Your task to perform on an android device: Search for acer predator on target.com, select the first entry, add it to the cart, then select checkout. Image 0: 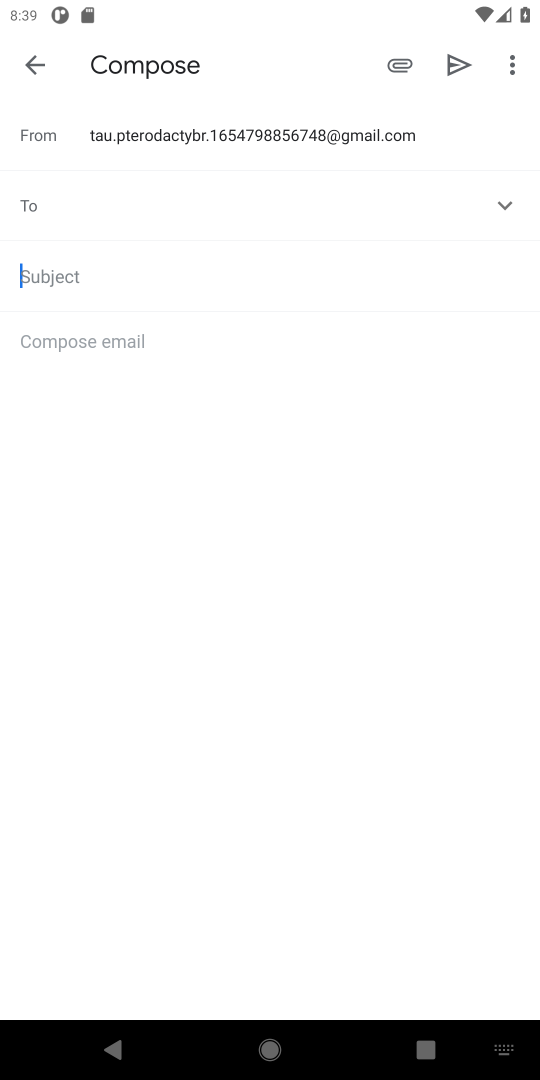
Step 0: press home button
Your task to perform on an android device: Search for acer predator on target.com, select the first entry, add it to the cart, then select checkout. Image 1: 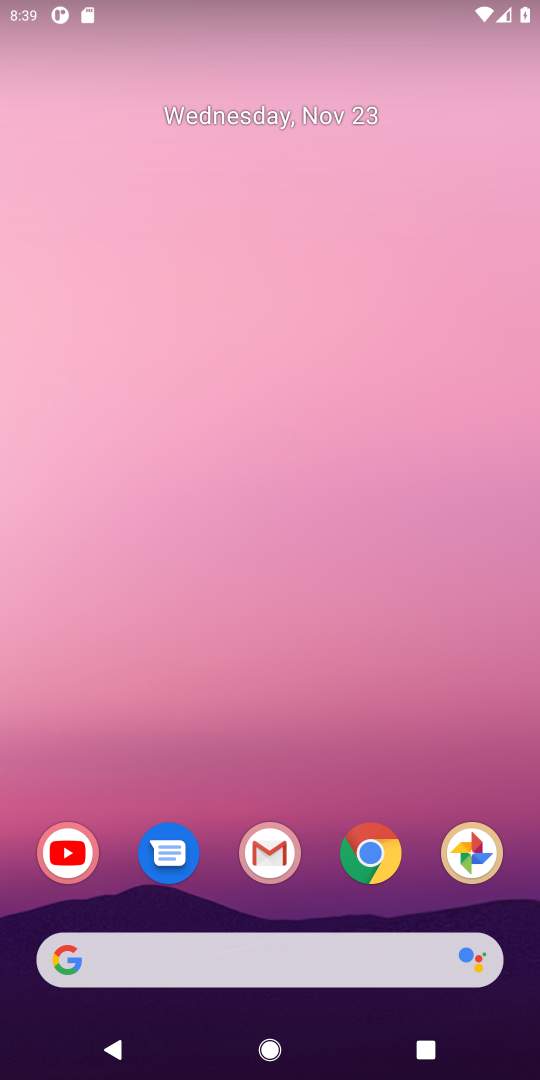
Step 1: click (368, 856)
Your task to perform on an android device: Search for acer predator on target.com, select the first entry, add it to the cart, then select checkout. Image 2: 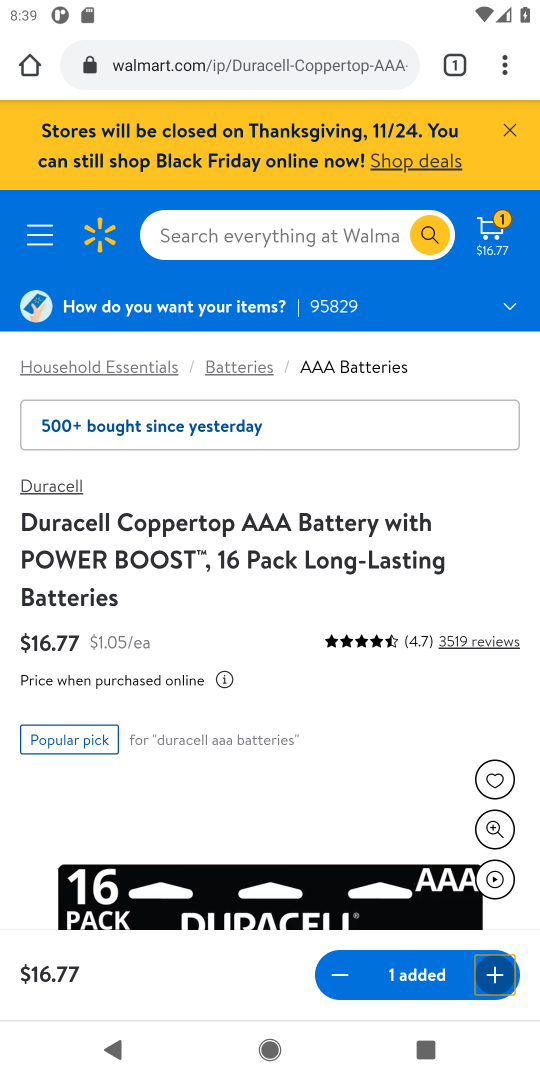
Step 2: click (197, 53)
Your task to perform on an android device: Search for acer predator on target.com, select the first entry, add it to the cart, then select checkout. Image 3: 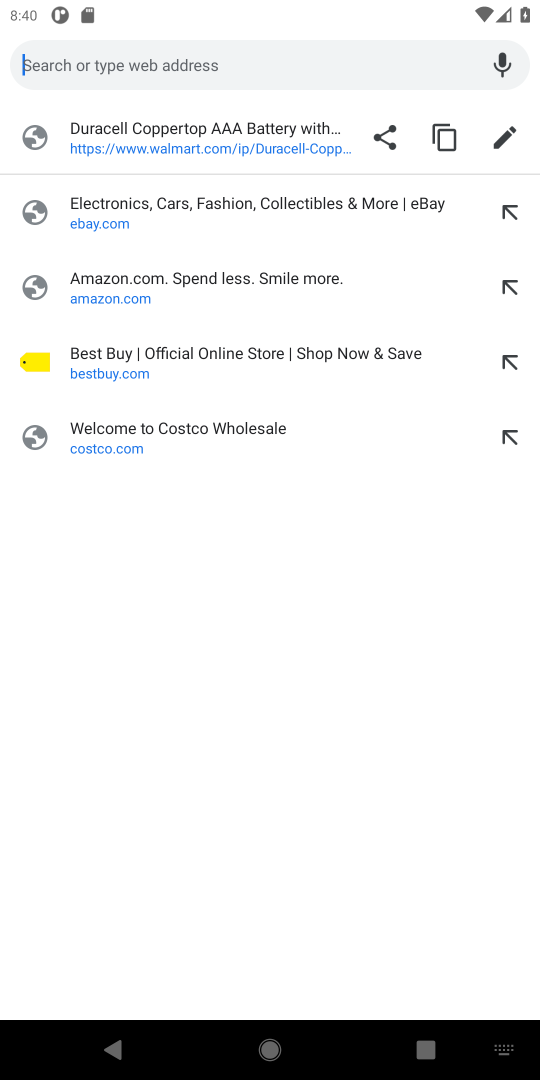
Step 3: type "target.com"
Your task to perform on an android device: Search for acer predator on target.com, select the first entry, add it to the cart, then select checkout. Image 4: 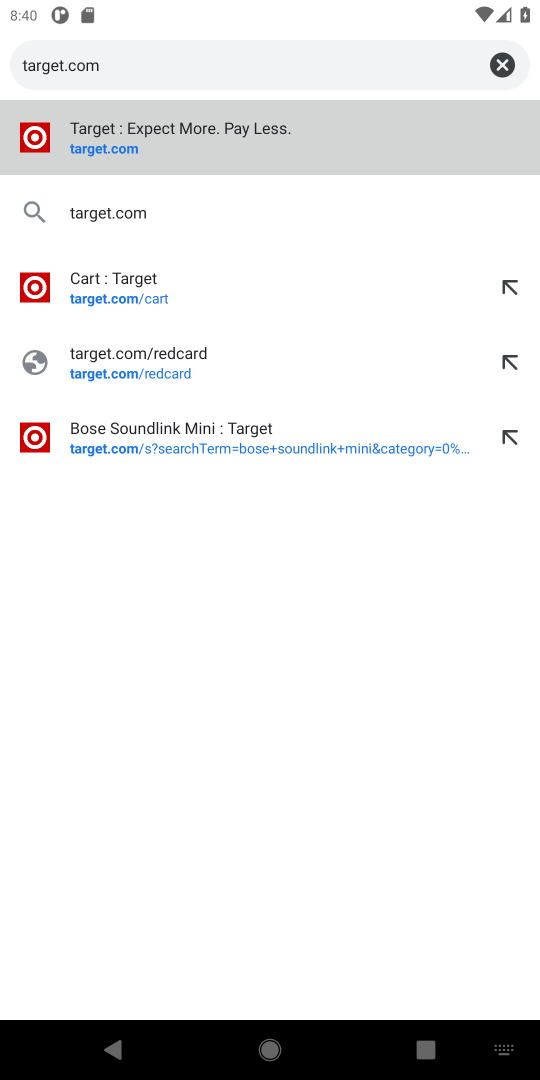
Step 4: click (91, 132)
Your task to perform on an android device: Search for acer predator on target.com, select the first entry, add it to the cart, then select checkout. Image 5: 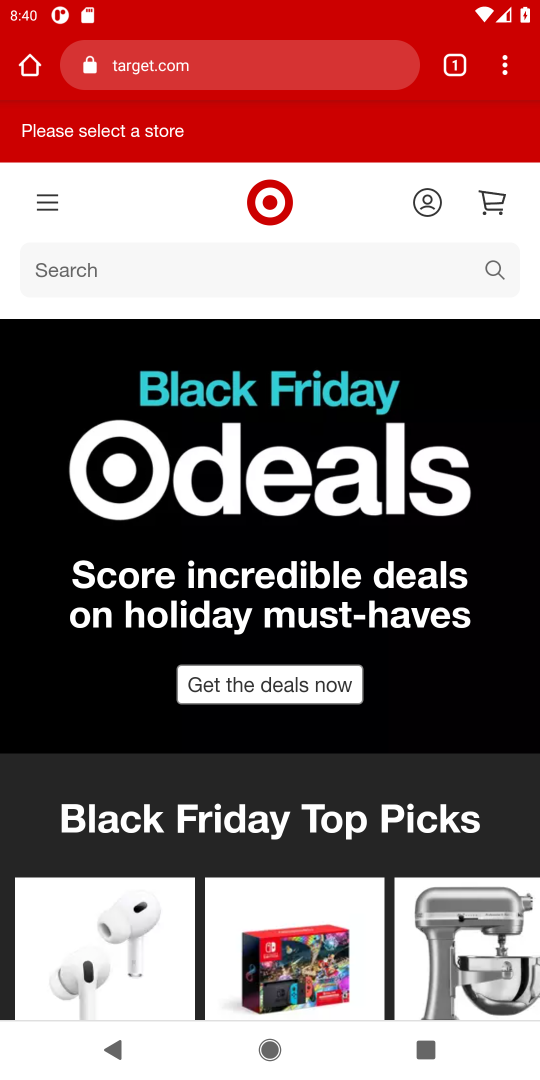
Step 5: click (491, 271)
Your task to perform on an android device: Search for acer predator on target.com, select the first entry, add it to the cart, then select checkout. Image 6: 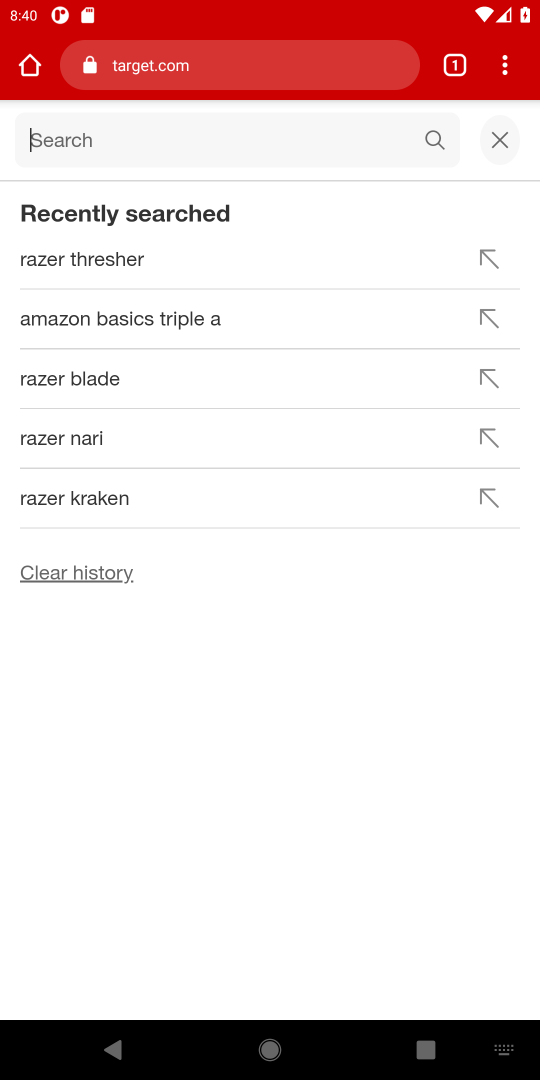
Step 6: type " acer predator"
Your task to perform on an android device: Search for acer predator on target.com, select the first entry, add it to the cart, then select checkout. Image 7: 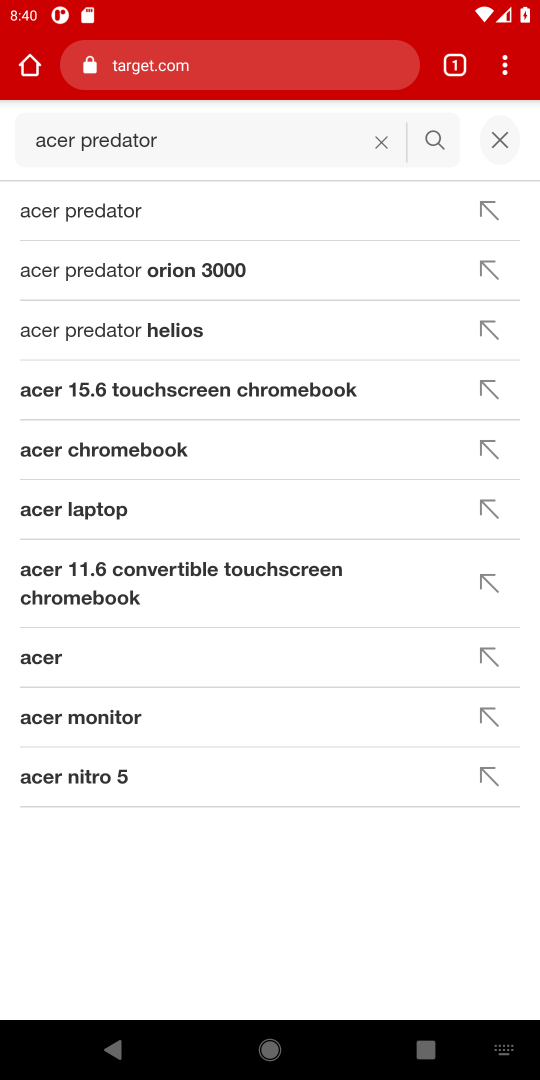
Step 7: click (77, 221)
Your task to perform on an android device: Search for acer predator on target.com, select the first entry, add it to the cart, then select checkout. Image 8: 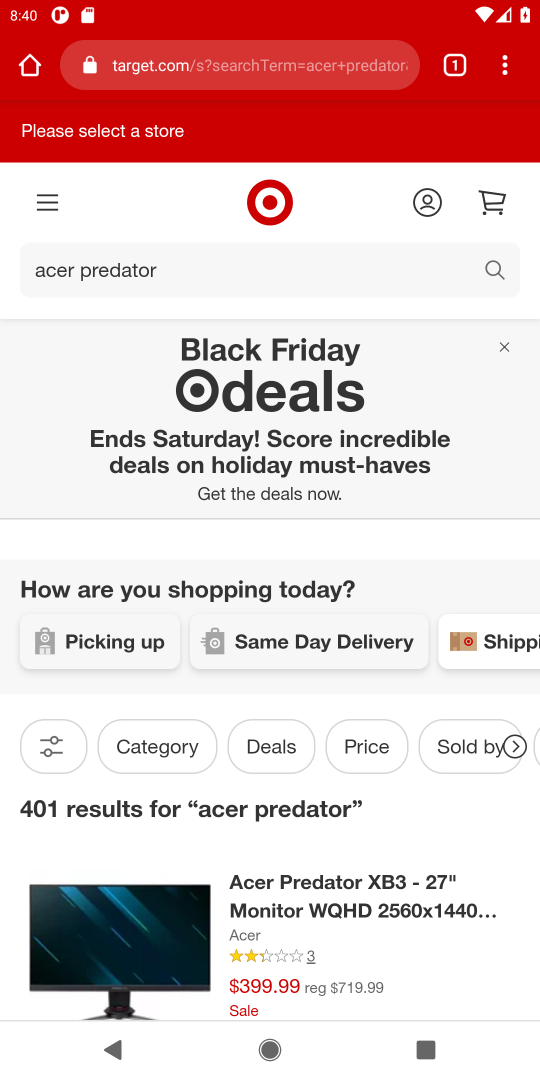
Step 8: drag from (145, 759) to (152, 358)
Your task to perform on an android device: Search for acer predator on target.com, select the first entry, add it to the cart, then select checkout. Image 9: 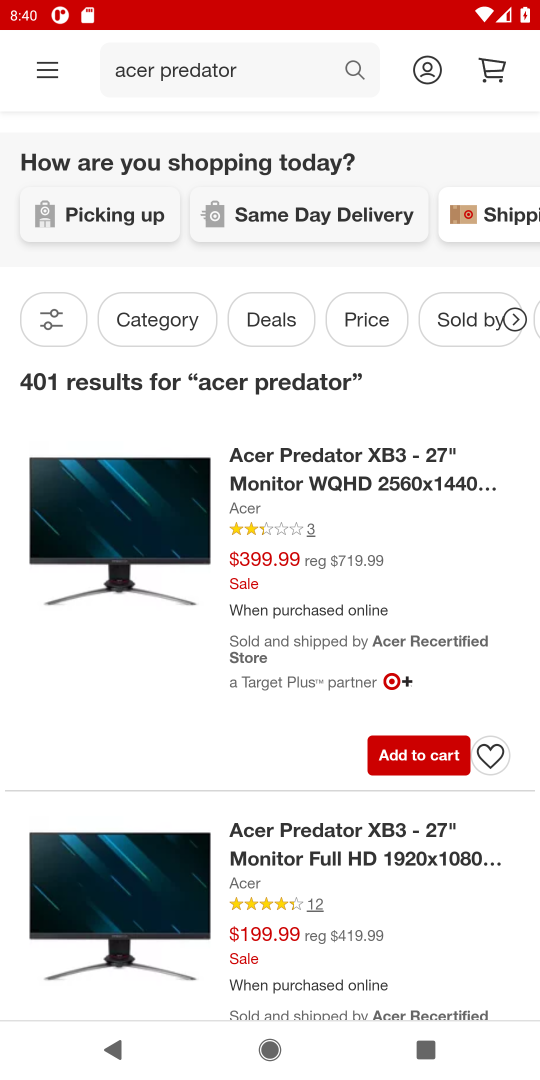
Step 9: click (419, 754)
Your task to perform on an android device: Search for acer predator on target.com, select the first entry, add it to the cart, then select checkout. Image 10: 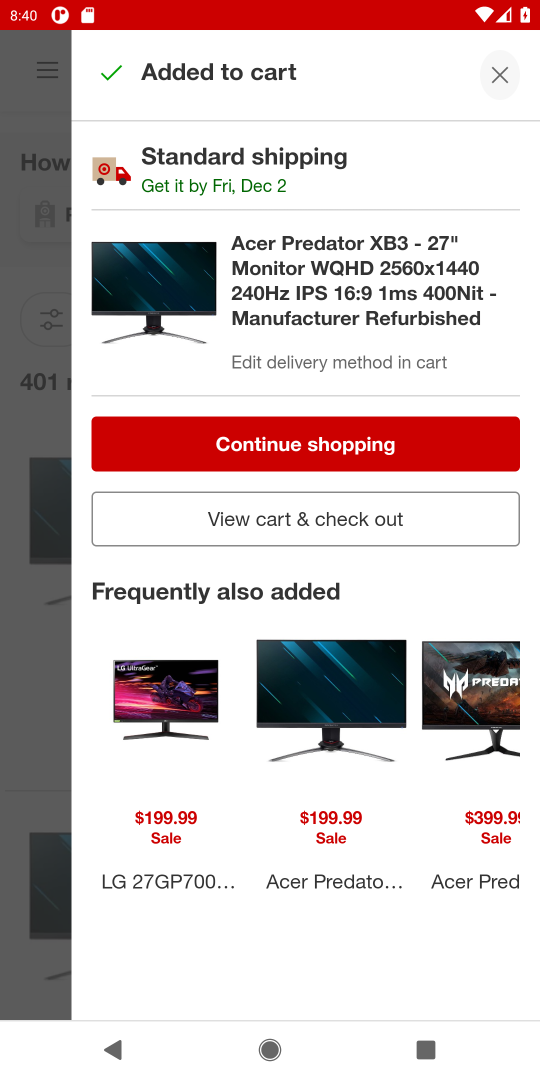
Step 10: click (265, 520)
Your task to perform on an android device: Search for acer predator on target.com, select the first entry, add it to the cart, then select checkout. Image 11: 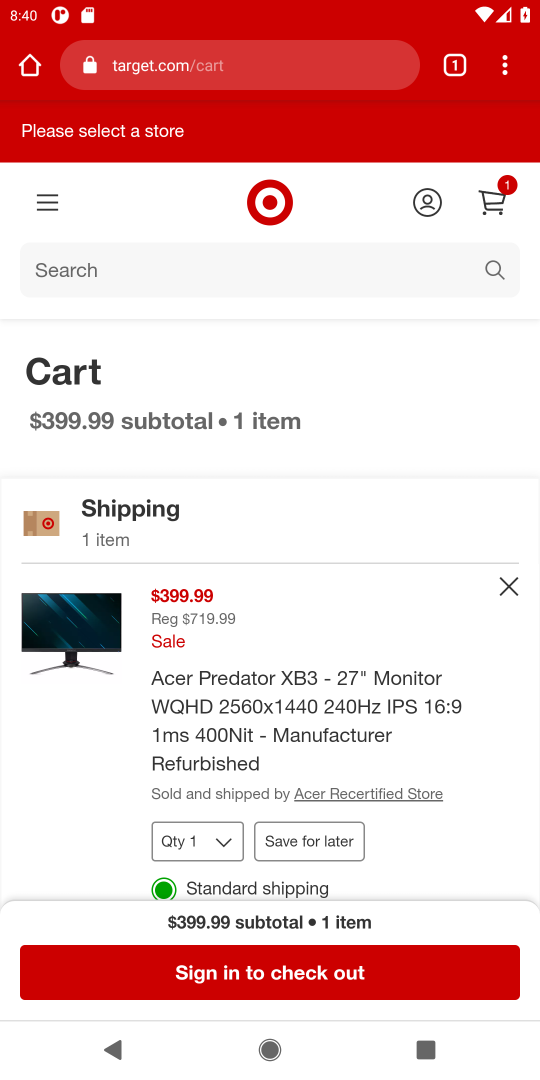
Step 11: click (268, 975)
Your task to perform on an android device: Search for acer predator on target.com, select the first entry, add it to the cart, then select checkout. Image 12: 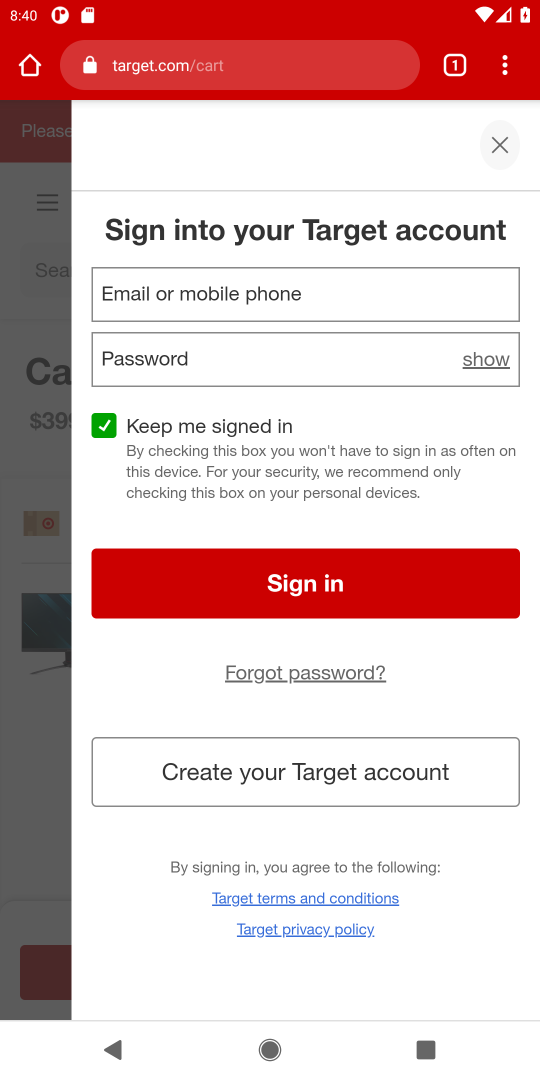
Step 12: task complete